Your task to perform on an android device: snooze an email in the gmail app Image 0: 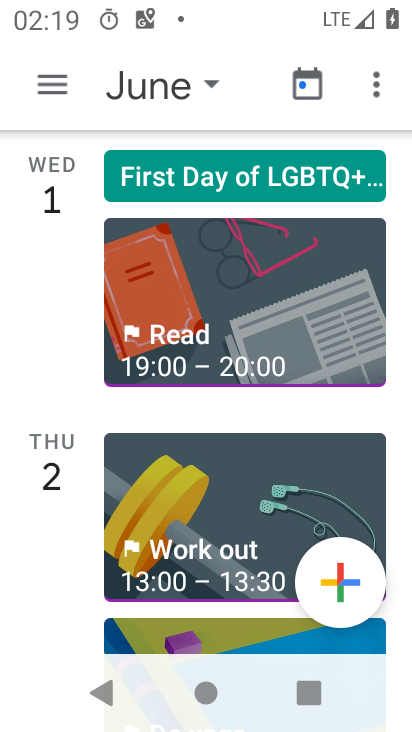
Step 0: press home button
Your task to perform on an android device: snooze an email in the gmail app Image 1: 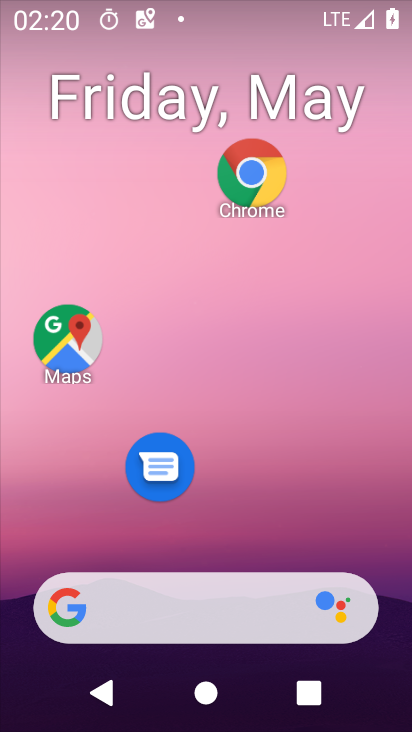
Step 1: drag from (230, 659) to (136, 138)
Your task to perform on an android device: snooze an email in the gmail app Image 2: 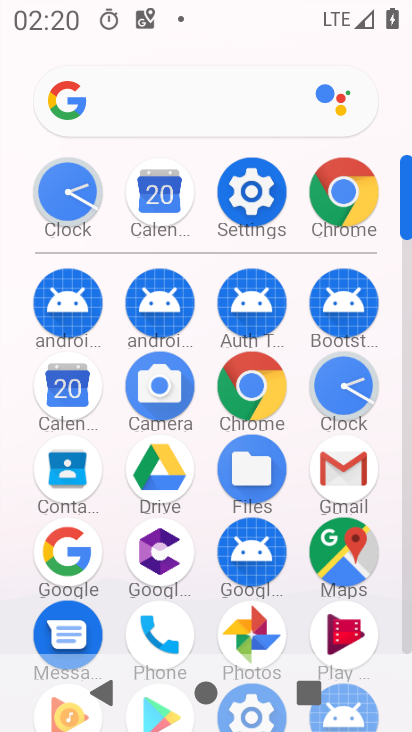
Step 2: click (373, 488)
Your task to perform on an android device: snooze an email in the gmail app Image 3: 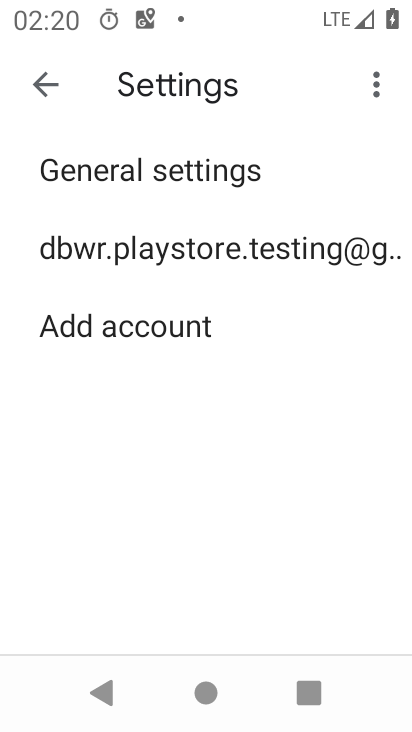
Step 3: click (28, 65)
Your task to perform on an android device: snooze an email in the gmail app Image 4: 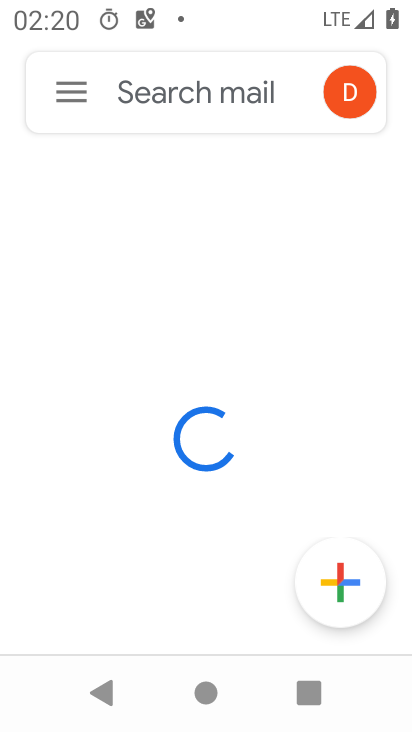
Step 4: click (49, 113)
Your task to perform on an android device: snooze an email in the gmail app Image 5: 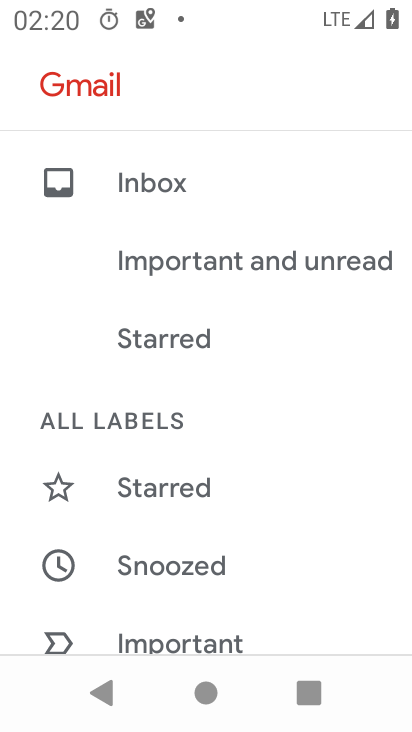
Step 5: drag from (114, 227) to (232, 650)
Your task to perform on an android device: snooze an email in the gmail app Image 6: 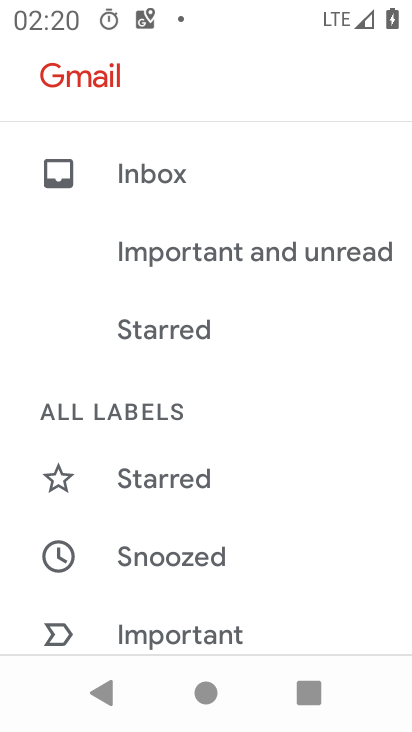
Step 6: drag from (127, 210) to (365, 590)
Your task to perform on an android device: snooze an email in the gmail app Image 7: 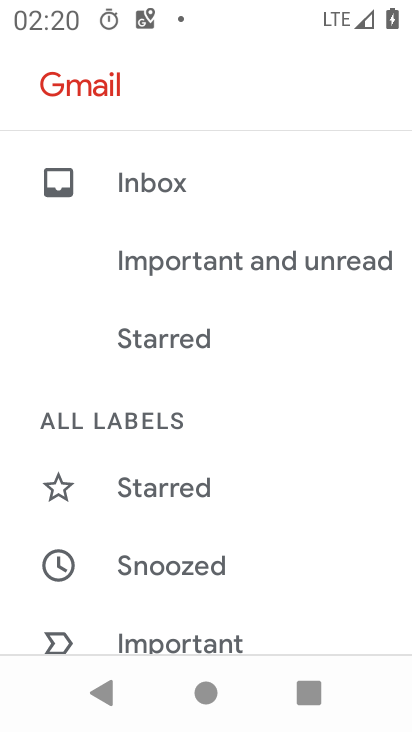
Step 7: click (187, 570)
Your task to perform on an android device: snooze an email in the gmail app Image 8: 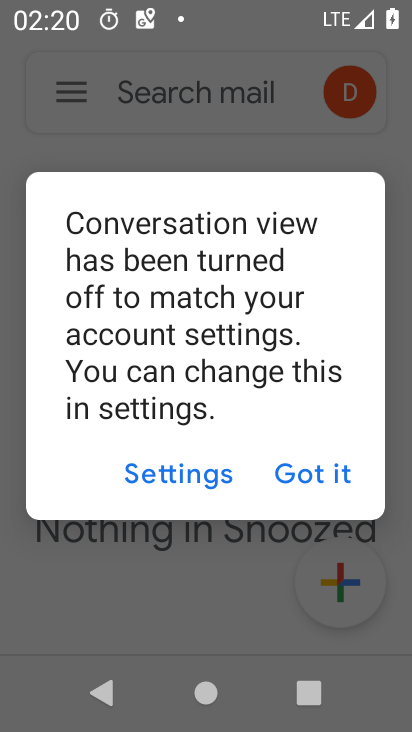
Step 8: click (302, 502)
Your task to perform on an android device: snooze an email in the gmail app Image 9: 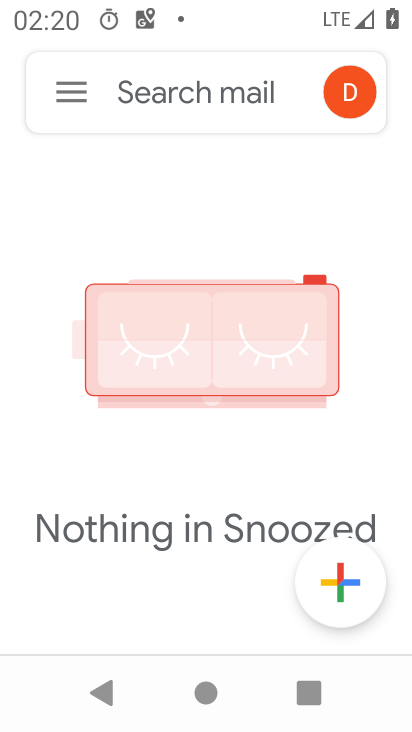
Step 9: task complete